Your task to perform on an android device: set the stopwatch Image 0: 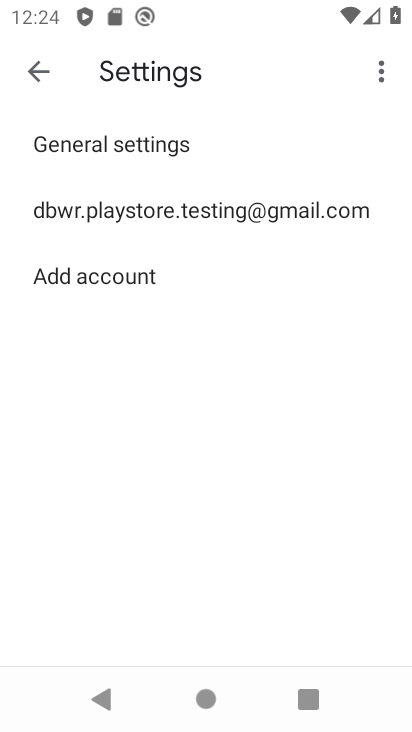
Step 0: press home button
Your task to perform on an android device: set the stopwatch Image 1: 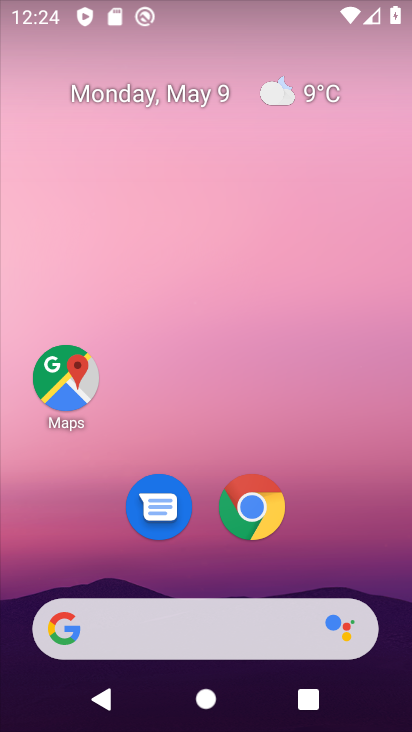
Step 1: drag from (229, 729) to (238, 59)
Your task to perform on an android device: set the stopwatch Image 2: 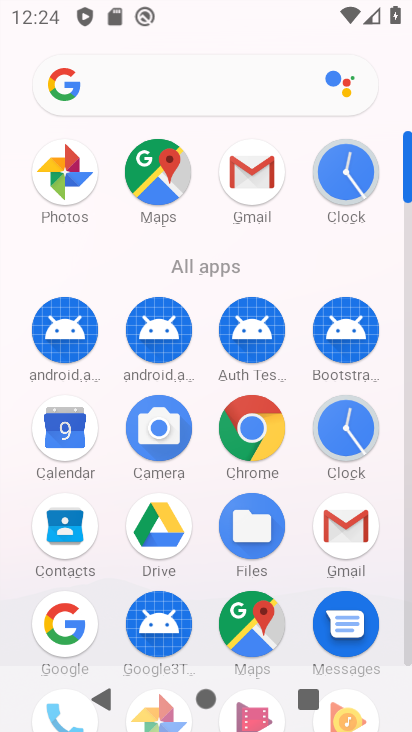
Step 2: click (351, 431)
Your task to perform on an android device: set the stopwatch Image 3: 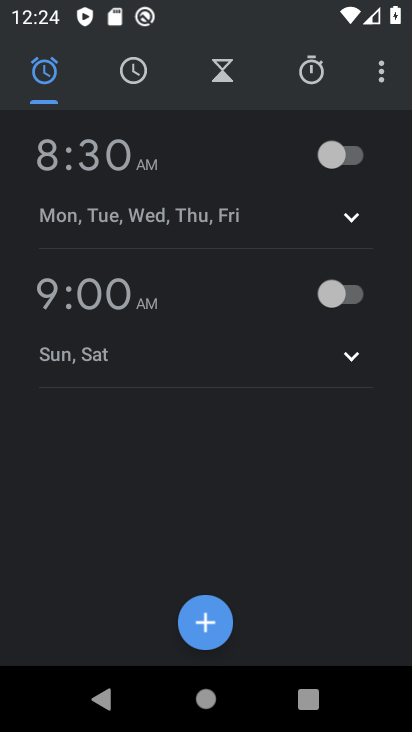
Step 3: click (313, 73)
Your task to perform on an android device: set the stopwatch Image 4: 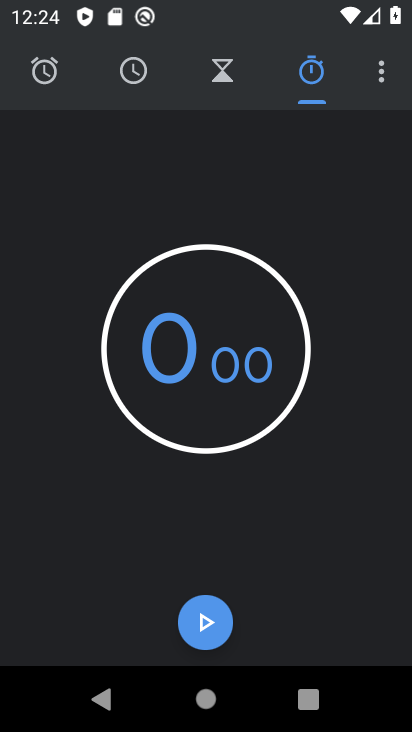
Step 4: click (190, 354)
Your task to perform on an android device: set the stopwatch Image 5: 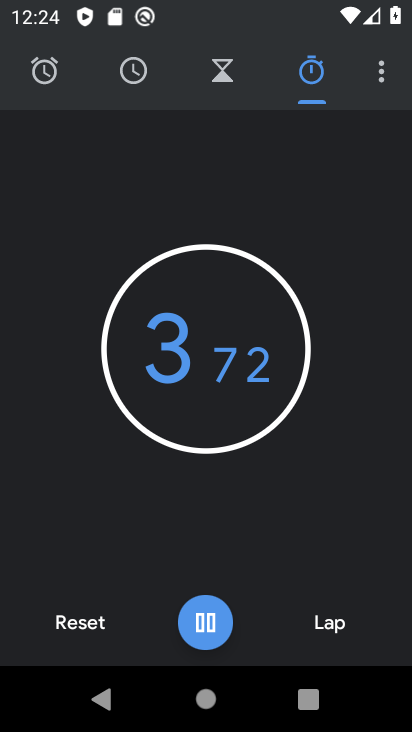
Step 5: type "78"
Your task to perform on an android device: set the stopwatch Image 6: 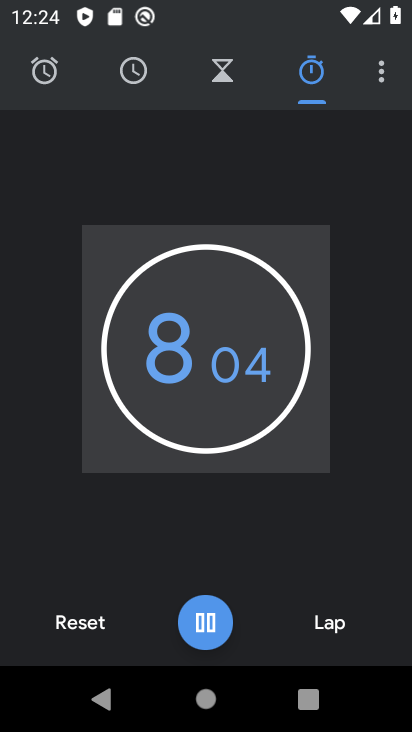
Step 6: task complete